Your task to perform on an android device: change keyboard looks Image 0: 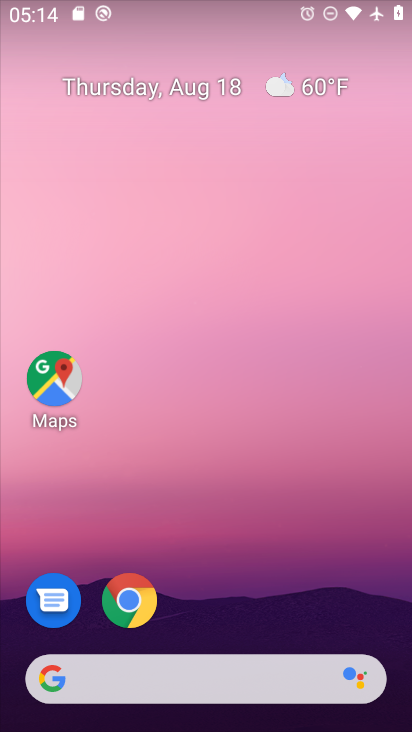
Step 0: press home button
Your task to perform on an android device: change keyboard looks Image 1: 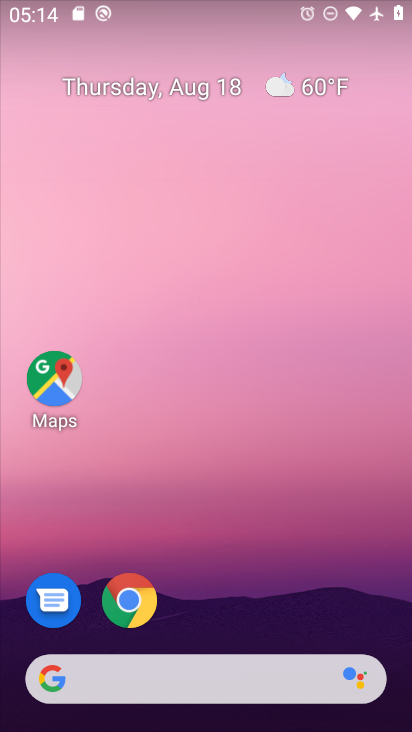
Step 1: drag from (238, 636) to (274, 75)
Your task to perform on an android device: change keyboard looks Image 2: 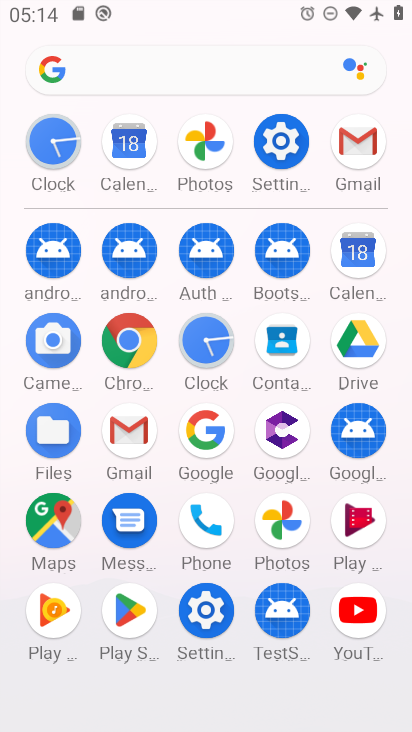
Step 2: click (287, 163)
Your task to perform on an android device: change keyboard looks Image 3: 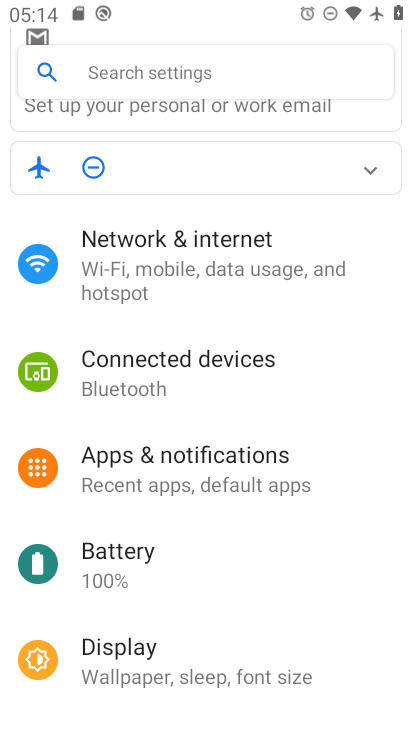
Step 3: drag from (323, 648) to (305, 2)
Your task to perform on an android device: change keyboard looks Image 4: 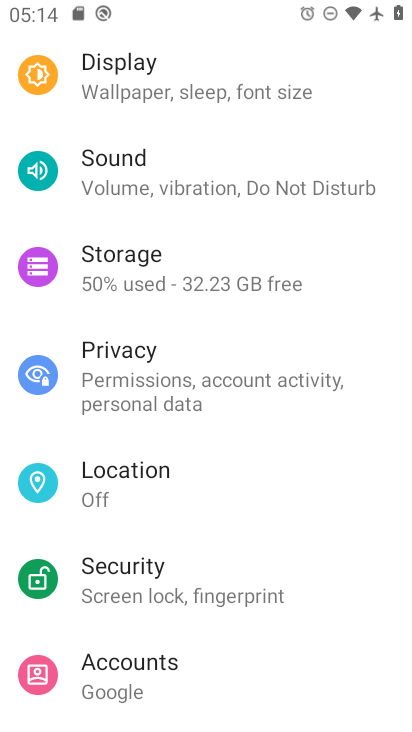
Step 4: drag from (218, 672) to (227, 115)
Your task to perform on an android device: change keyboard looks Image 5: 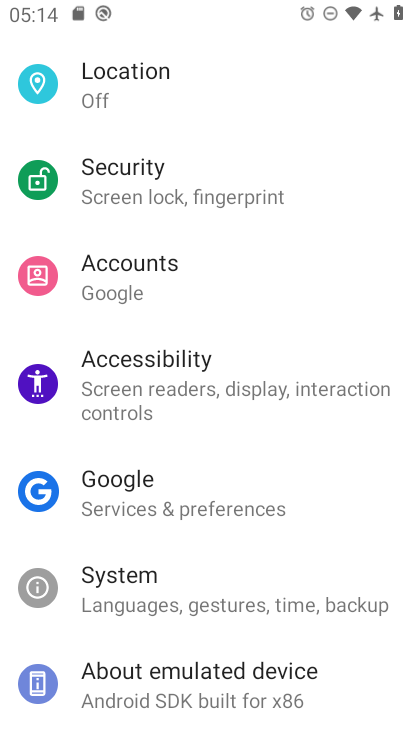
Step 5: click (146, 604)
Your task to perform on an android device: change keyboard looks Image 6: 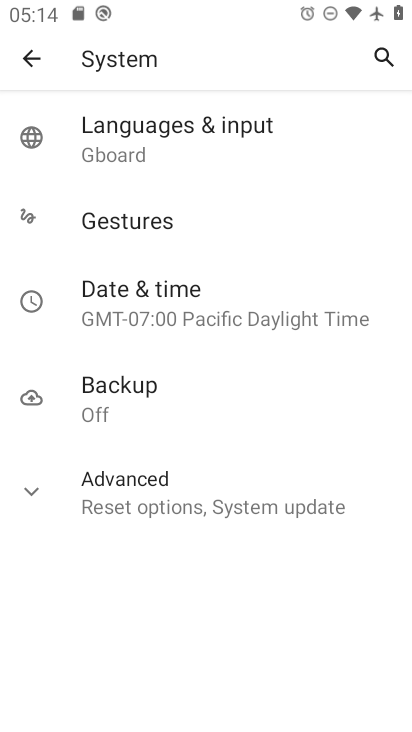
Step 6: click (126, 154)
Your task to perform on an android device: change keyboard looks Image 7: 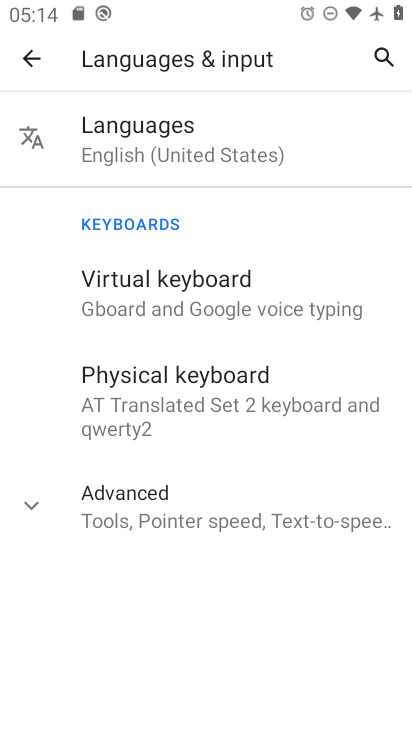
Step 7: click (136, 313)
Your task to perform on an android device: change keyboard looks Image 8: 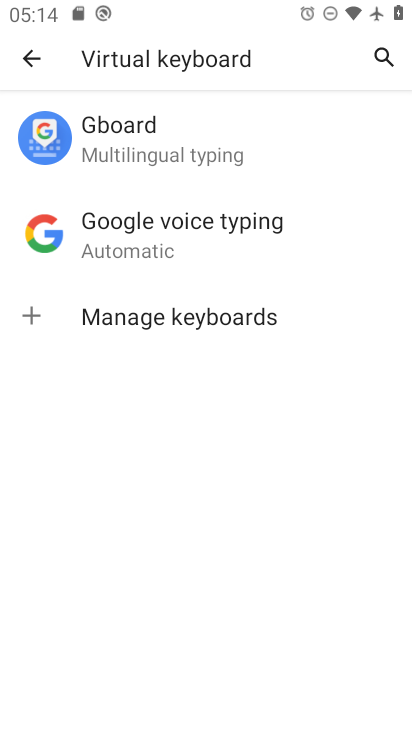
Step 8: click (163, 170)
Your task to perform on an android device: change keyboard looks Image 9: 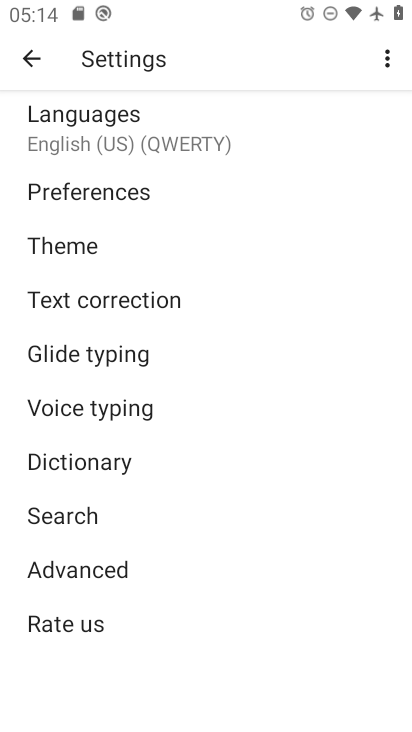
Step 9: click (69, 250)
Your task to perform on an android device: change keyboard looks Image 10: 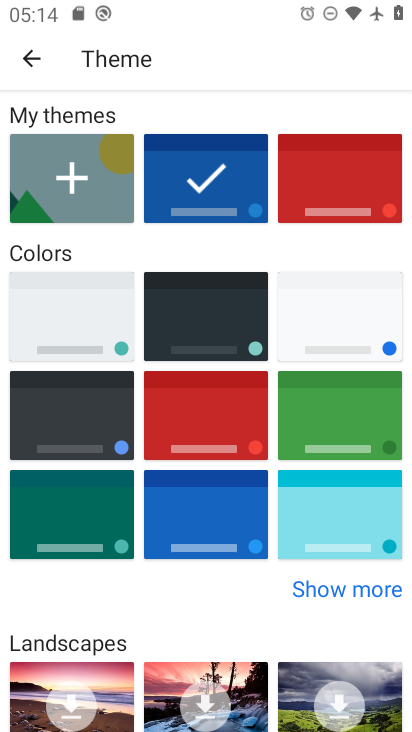
Step 10: click (175, 514)
Your task to perform on an android device: change keyboard looks Image 11: 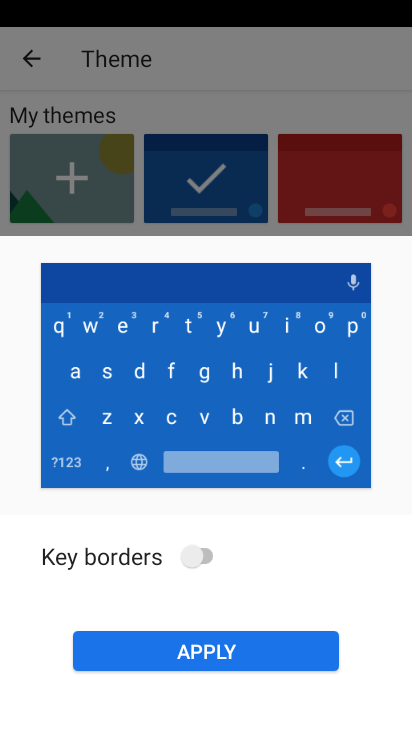
Step 11: click (139, 652)
Your task to perform on an android device: change keyboard looks Image 12: 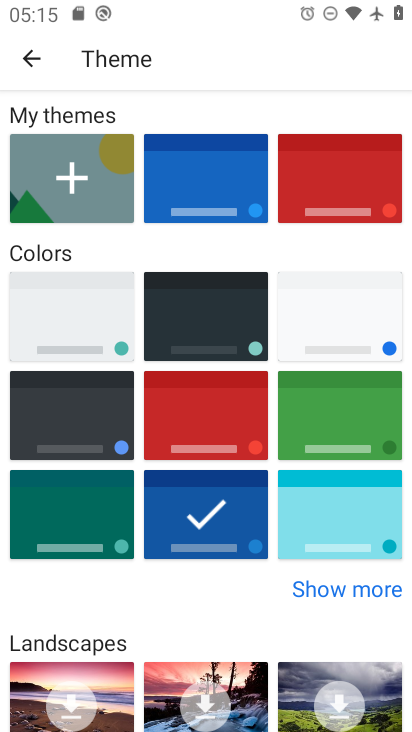
Step 12: click (233, 430)
Your task to perform on an android device: change keyboard looks Image 13: 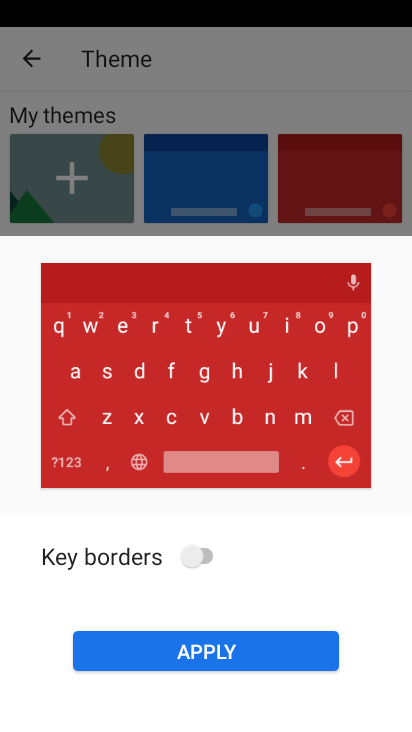
Step 13: click (140, 671)
Your task to perform on an android device: change keyboard looks Image 14: 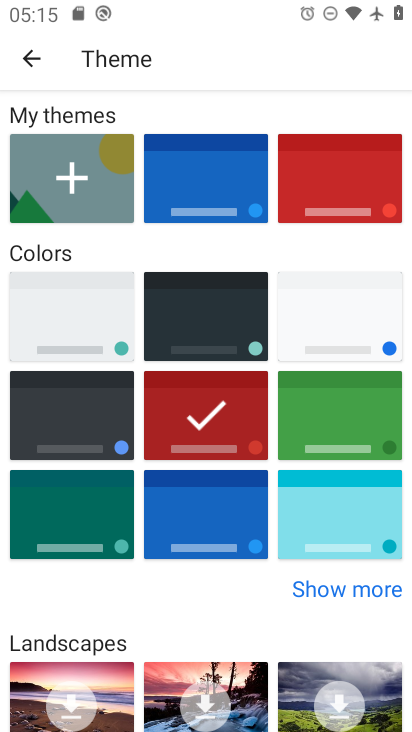
Step 14: task complete